Your task to perform on an android device: Open sound settings Image 0: 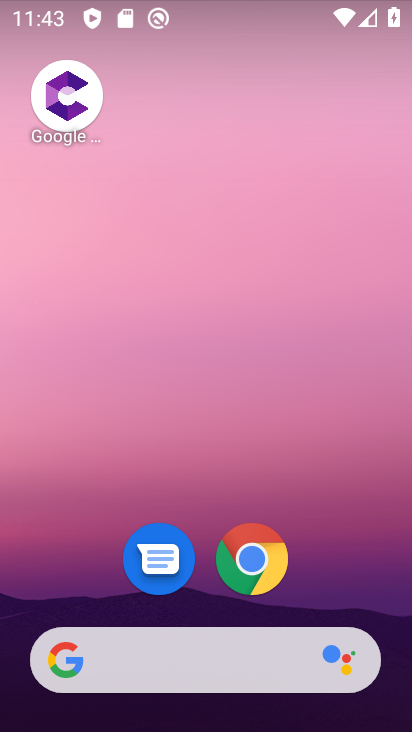
Step 0: drag from (209, 565) to (298, 44)
Your task to perform on an android device: Open sound settings Image 1: 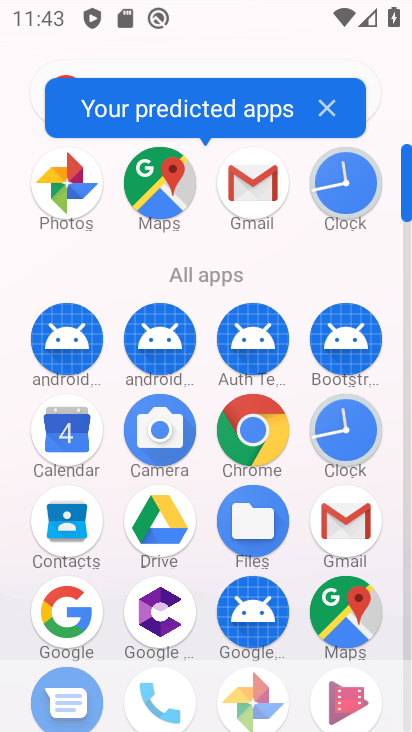
Step 1: drag from (199, 570) to (292, 16)
Your task to perform on an android device: Open sound settings Image 2: 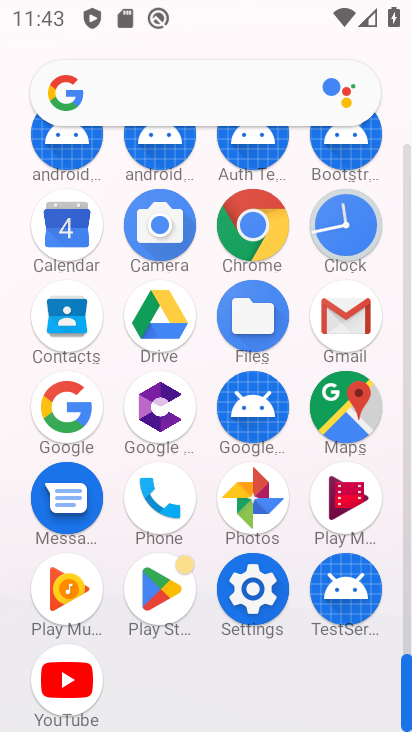
Step 2: click (266, 603)
Your task to perform on an android device: Open sound settings Image 3: 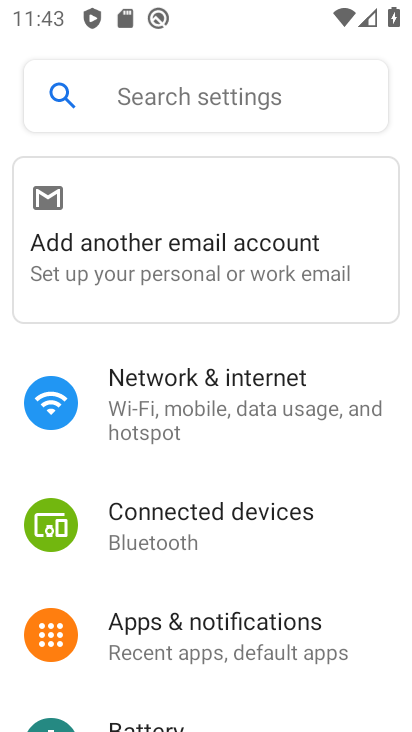
Step 3: drag from (261, 640) to (309, 91)
Your task to perform on an android device: Open sound settings Image 4: 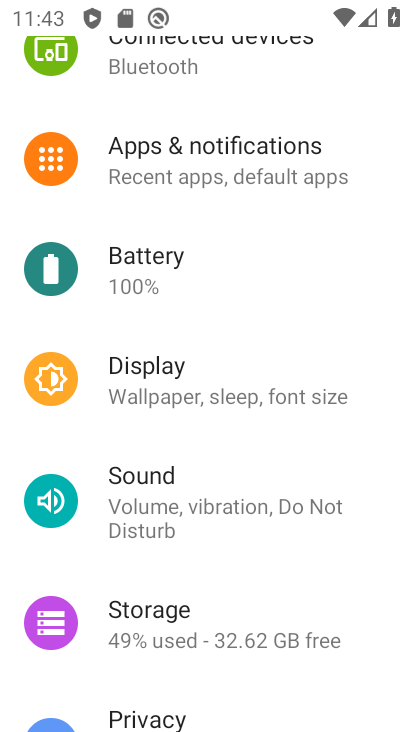
Step 4: click (235, 523)
Your task to perform on an android device: Open sound settings Image 5: 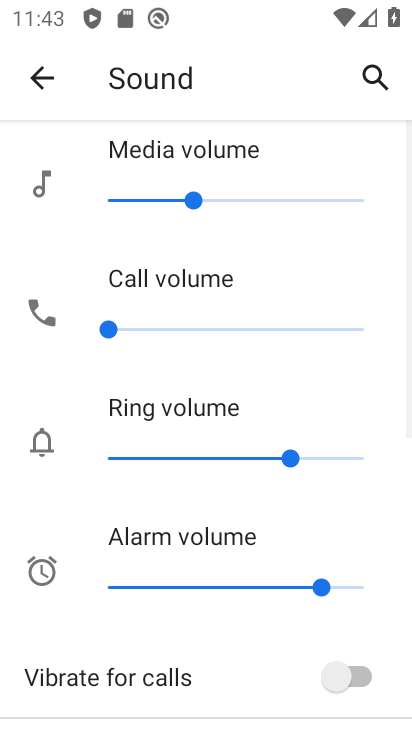
Step 5: task complete